Your task to perform on an android device: turn off translation in the chrome app Image 0: 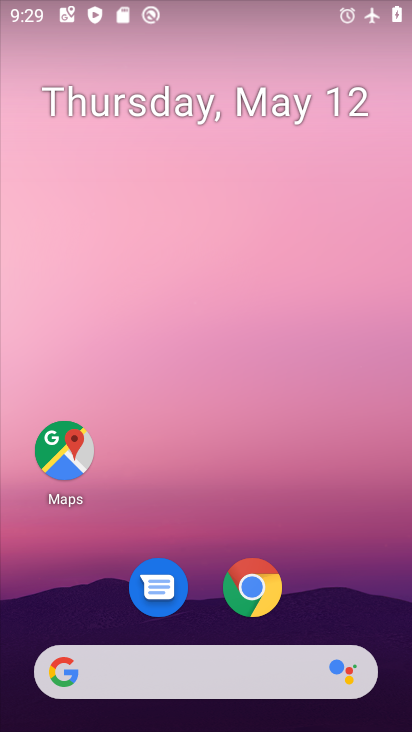
Step 0: drag from (293, 527) to (298, 187)
Your task to perform on an android device: turn off translation in the chrome app Image 1: 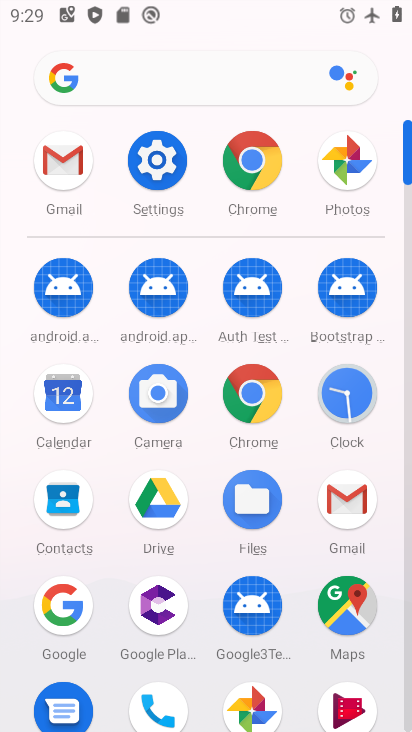
Step 1: click (233, 159)
Your task to perform on an android device: turn off translation in the chrome app Image 2: 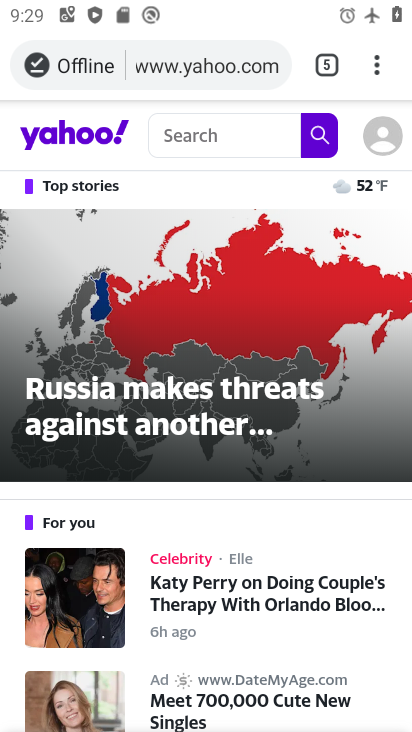
Step 2: click (361, 56)
Your task to perform on an android device: turn off translation in the chrome app Image 3: 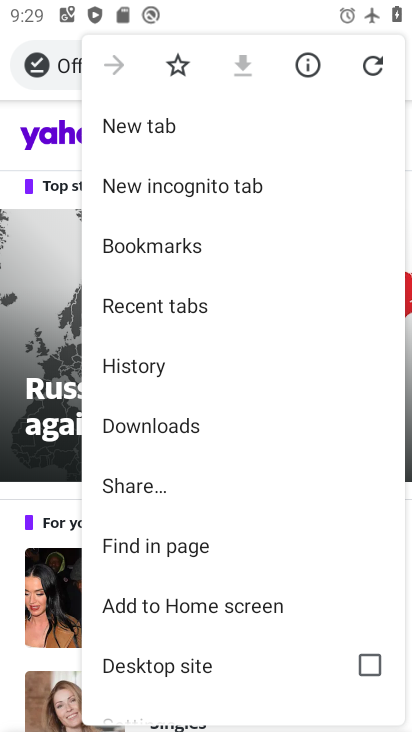
Step 3: drag from (236, 595) to (325, 261)
Your task to perform on an android device: turn off translation in the chrome app Image 4: 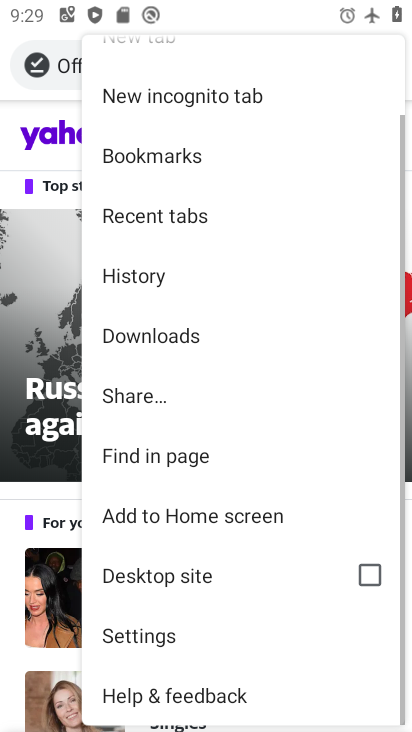
Step 4: click (147, 627)
Your task to perform on an android device: turn off translation in the chrome app Image 5: 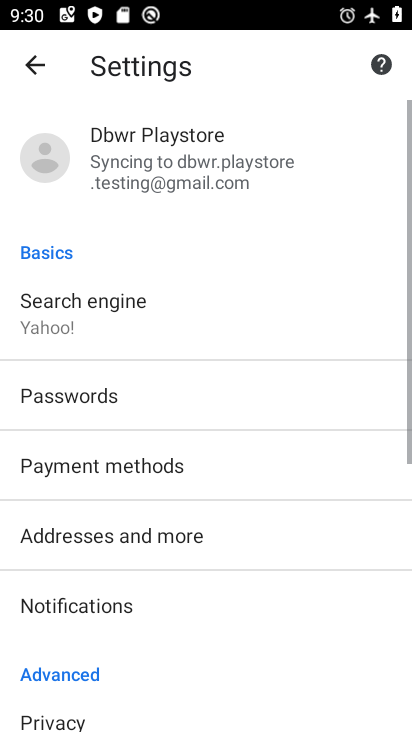
Step 5: drag from (188, 639) to (316, 271)
Your task to perform on an android device: turn off translation in the chrome app Image 6: 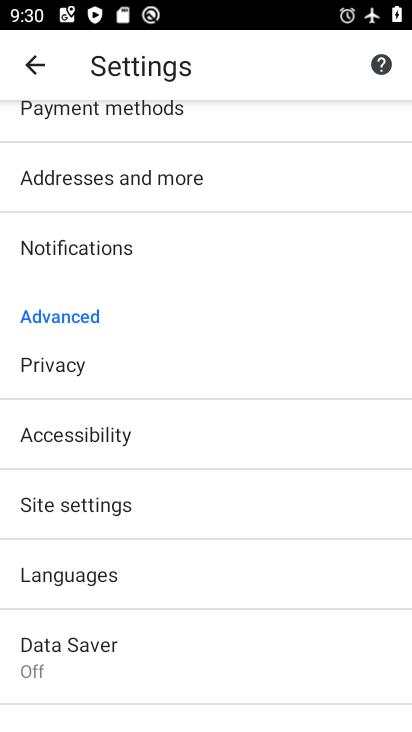
Step 6: click (108, 570)
Your task to perform on an android device: turn off translation in the chrome app Image 7: 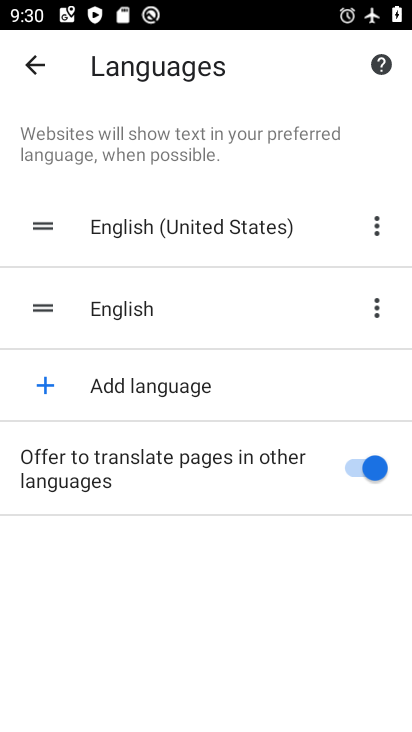
Step 7: click (363, 452)
Your task to perform on an android device: turn off translation in the chrome app Image 8: 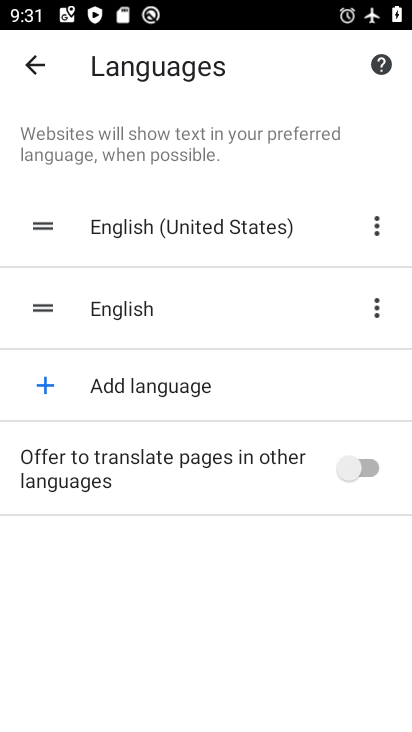
Step 8: task complete